Your task to perform on an android device: toggle notifications settings in the gmail app Image 0: 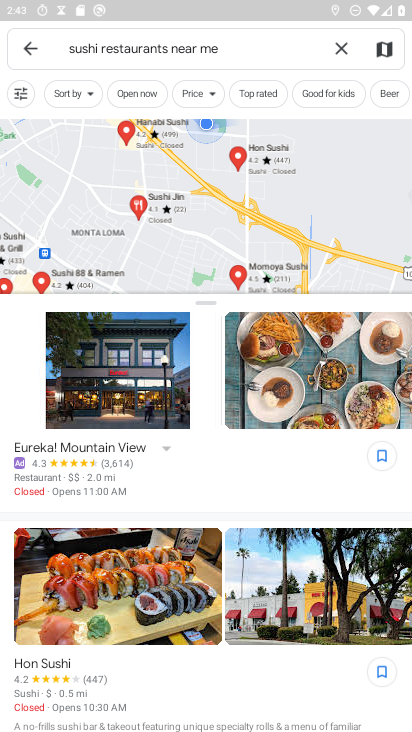
Step 0: press home button
Your task to perform on an android device: toggle notifications settings in the gmail app Image 1: 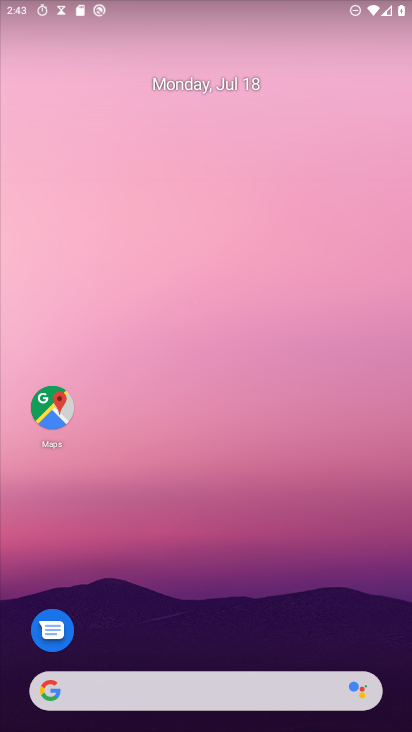
Step 1: drag from (243, 664) to (408, 32)
Your task to perform on an android device: toggle notifications settings in the gmail app Image 2: 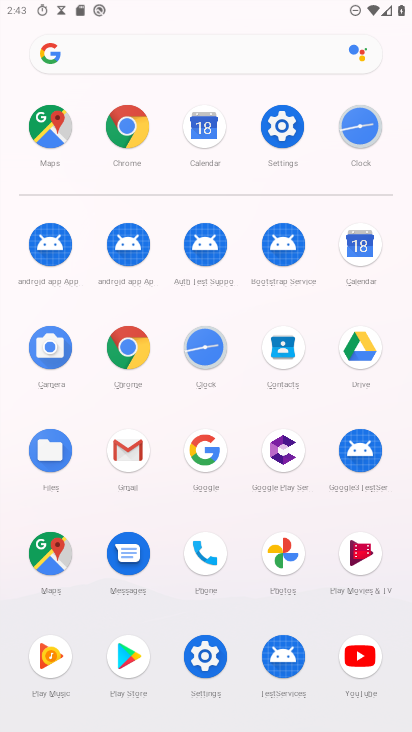
Step 2: click (126, 448)
Your task to perform on an android device: toggle notifications settings in the gmail app Image 3: 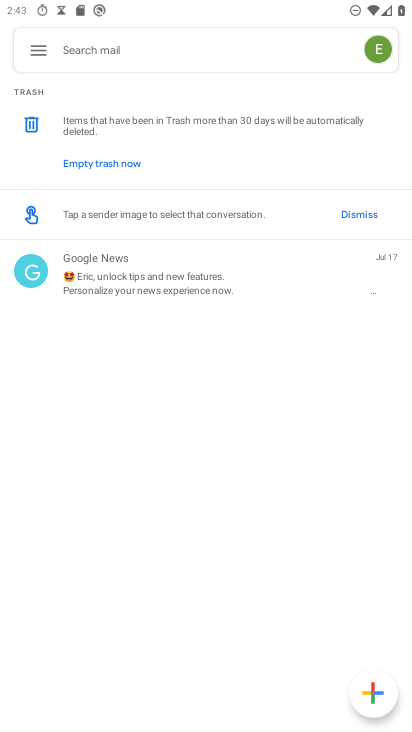
Step 3: click (37, 46)
Your task to perform on an android device: toggle notifications settings in the gmail app Image 4: 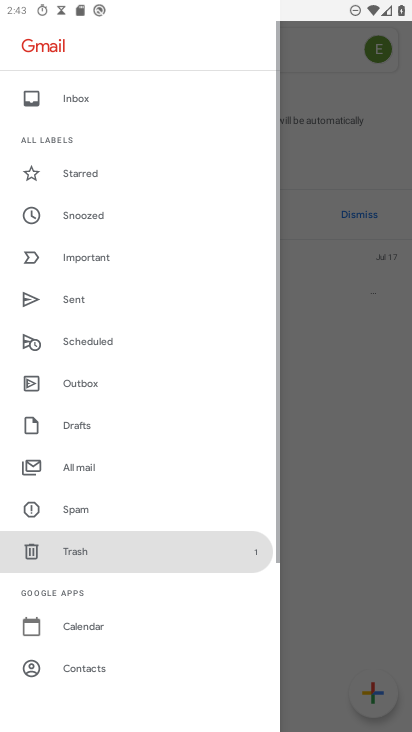
Step 4: drag from (108, 670) to (177, 178)
Your task to perform on an android device: toggle notifications settings in the gmail app Image 5: 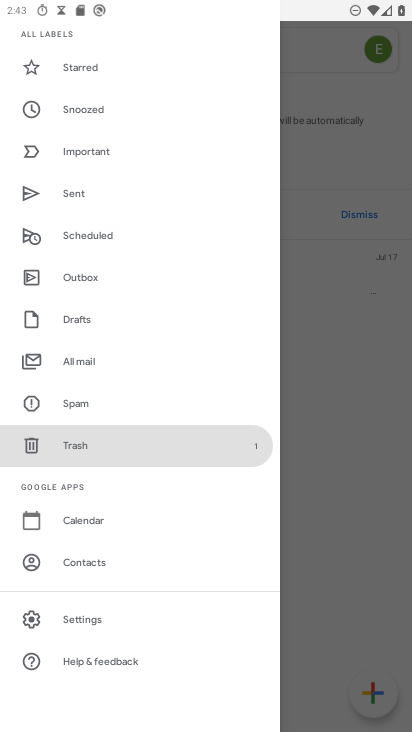
Step 5: click (131, 621)
Your task to perform on an android device: toggle notifications settings in the gmail app Image 6: 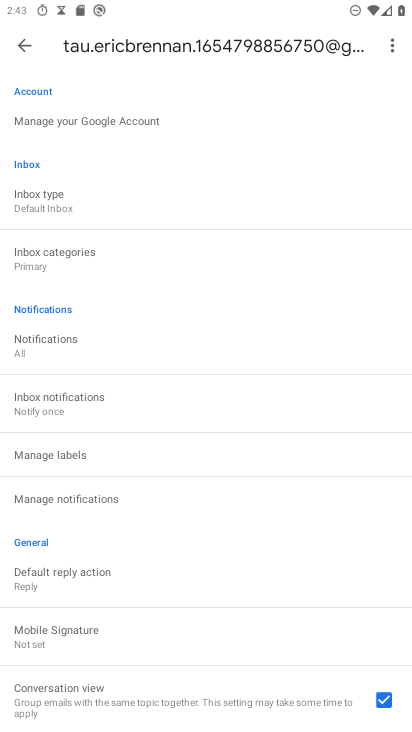
Step 6: click (102, 495)
Your task to perform on an android device: toggle notifications settings in the gmail app Image 7: 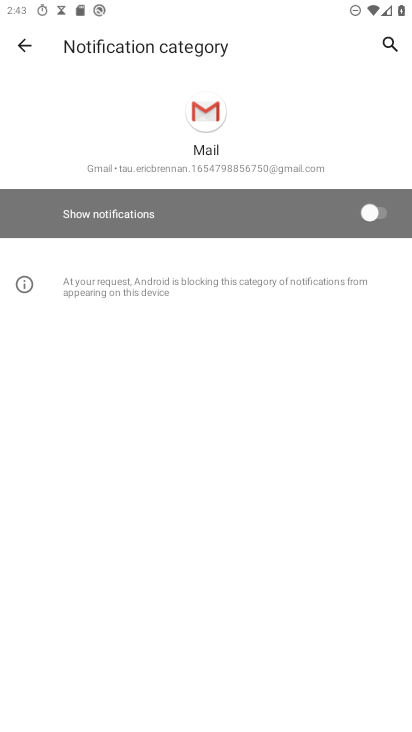
Step 7: click (385, 215)
Your task to perform on an android device: toggle notifications settings in the gmail app Image 8: 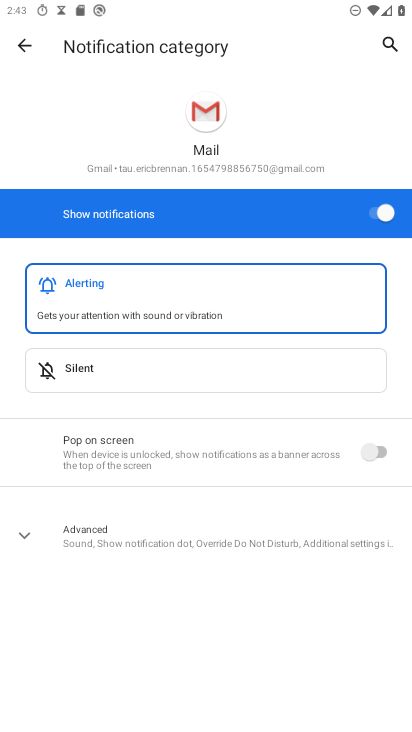
Step 8: task complete